Your task to perform on an android device: Search for seafood restaurants on Google Maps Image 0: 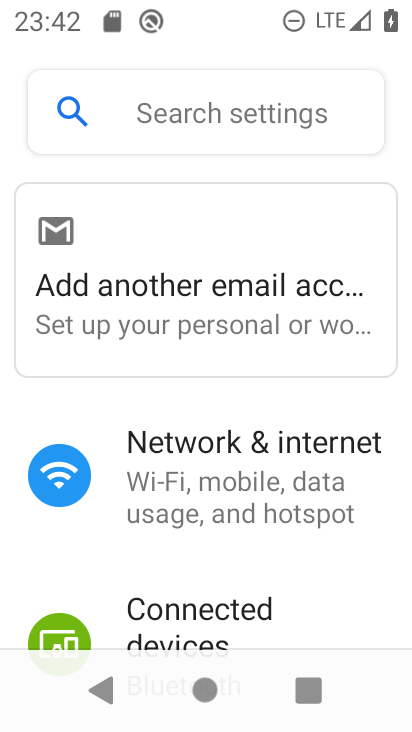
Step 0: drag from (221, 592) to (279, 459)
Your task to perform on an android device: Search for seafood restaurants on Google Maps Image 1: 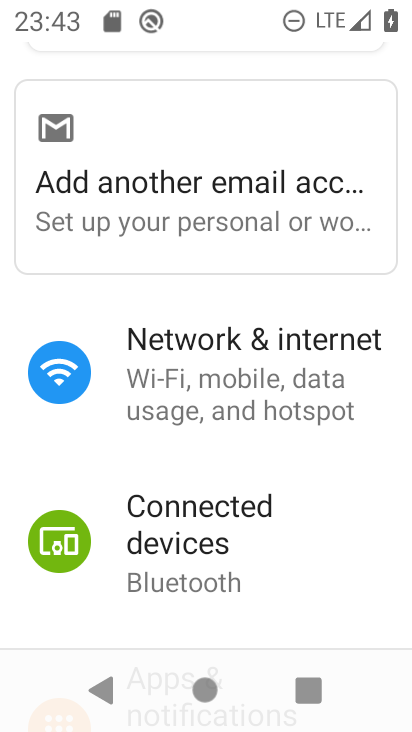
Step 1: drag from (229, 585) to (322, 224)
Your task to perform on an android device: Search for seafood restaurants on Google Maps Image 2: 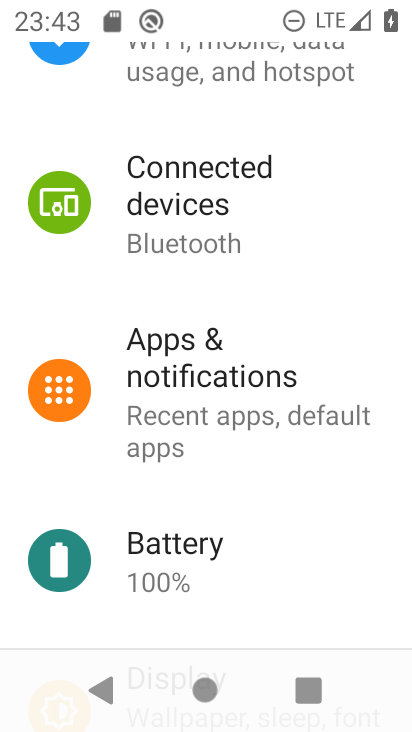
Step 2: press home button
Your task to perform on an android device: Search for seafood restaurants on Google Maps Image 3: 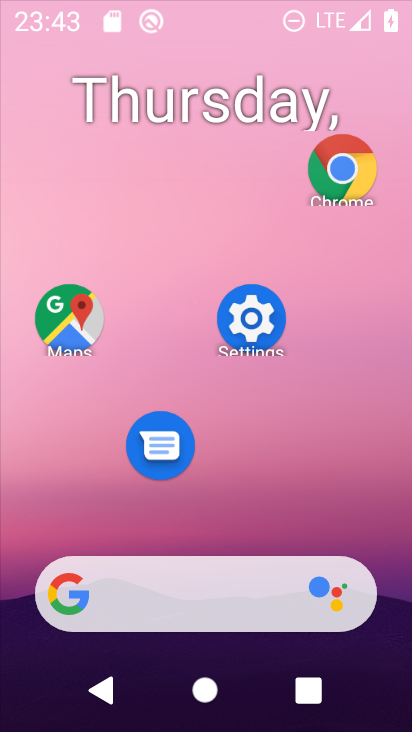
Step 3: drag from (249, 592) to (391, 37)
Your task to perform on an android device: Search for seafood restaurants on Google Maps Image 4: 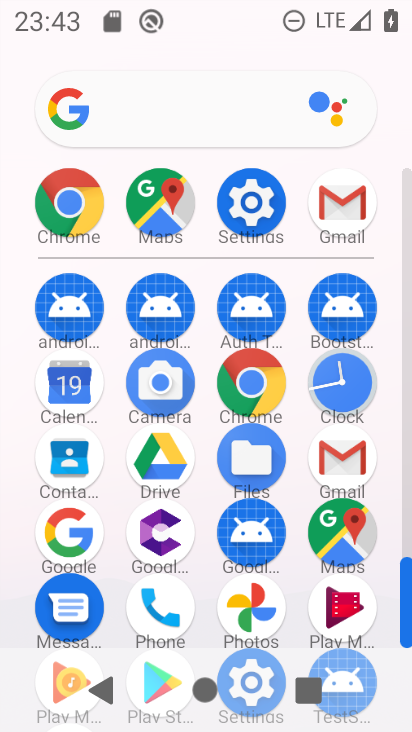
Step 4: click (340, 532)
Your task to perform on an android device: Search for seafood restaurants on Google Maps Image 5: 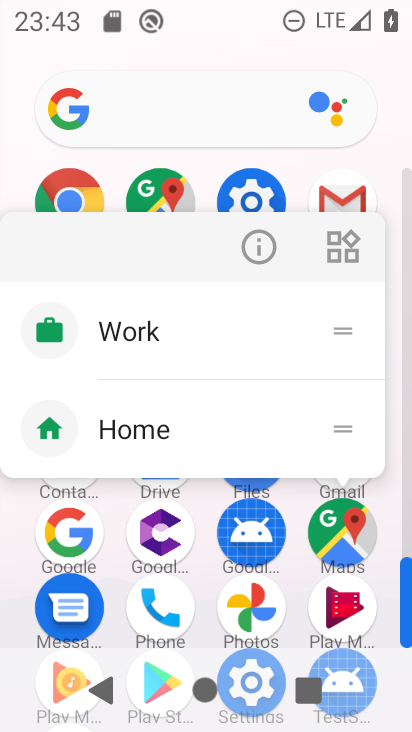
Step 5: click (281, 201)
Your task to perform on an android device: Search for seafood restaurants on Google Maps Image 6: 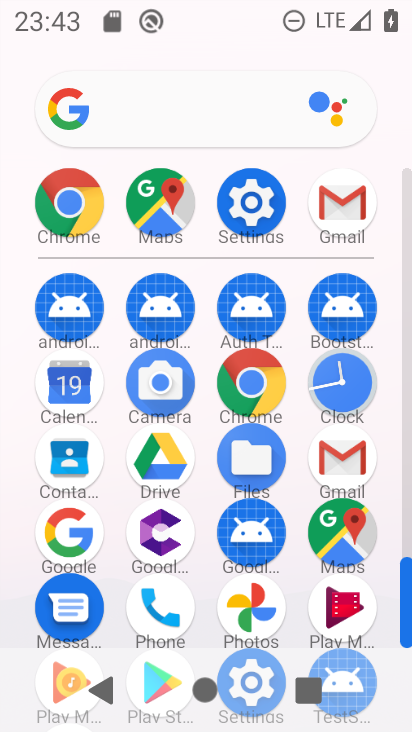
Step 6: drag from (281, 201) to (211, 74)
Your task to perform on an android device: Search for seafood restaurants on Google Maps Image 7: 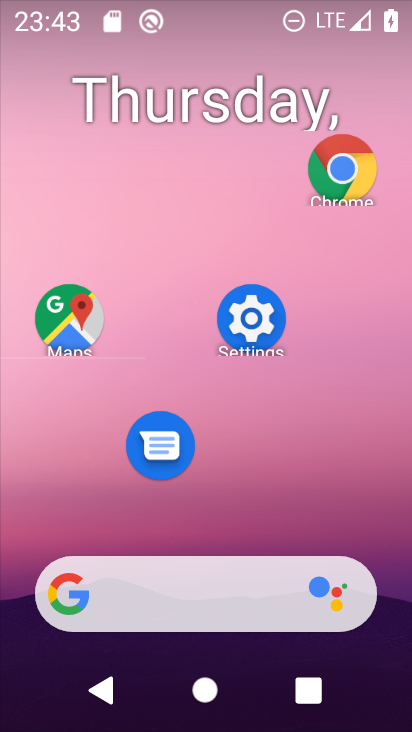
Step 7: drag from (230, 499) to (230, 387)
Your task to perform on an android device: Search for seafood restaurants on Google Maps Image 8: 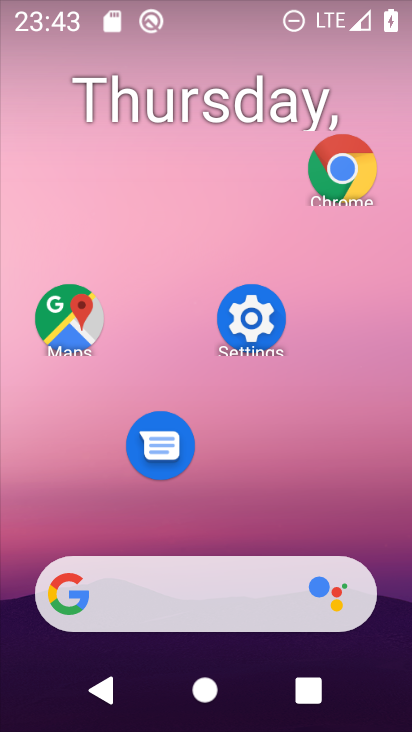
Step 8: click (61, 308)
Your task to perform on an android device: Search for seafood restaurants on Google Maps Image 9: 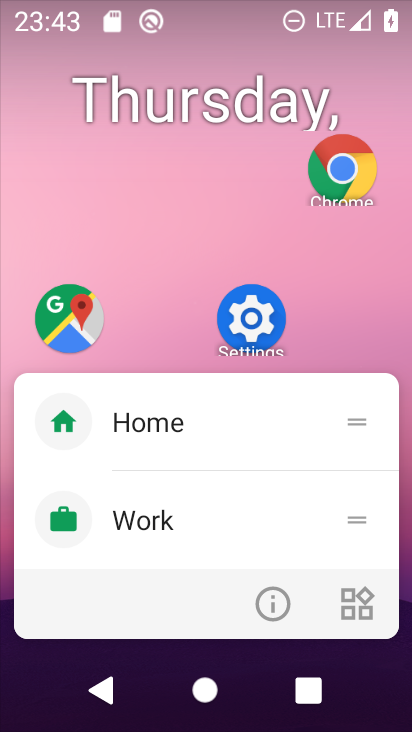
Step 9: click (276, 593)
Your task to perform on an android device: Search for seafood restaurants on Google Maps Image 10: 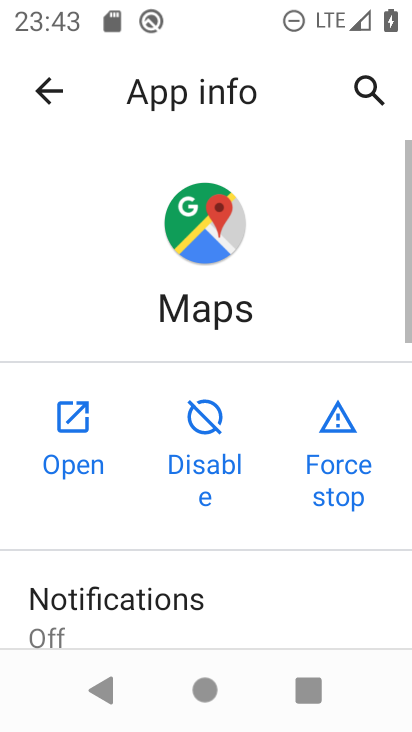
Step 10: click (73, 419)
Your task to perform on an android device: Search for seafood restaurants on Google Maps Image 11: 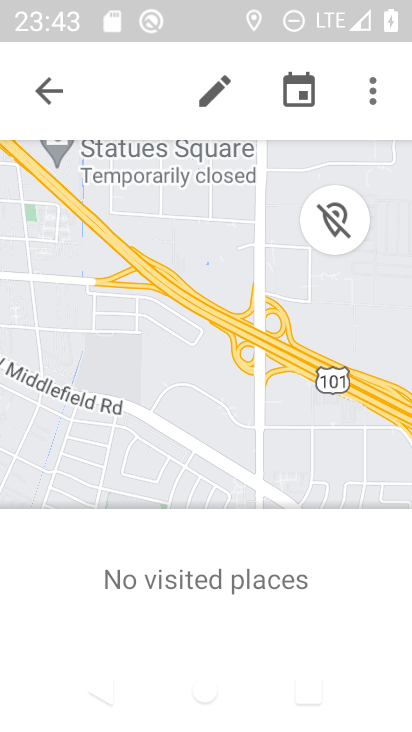
Step 11: task complete